Your task to perform on an android device: Open Google Image 0: 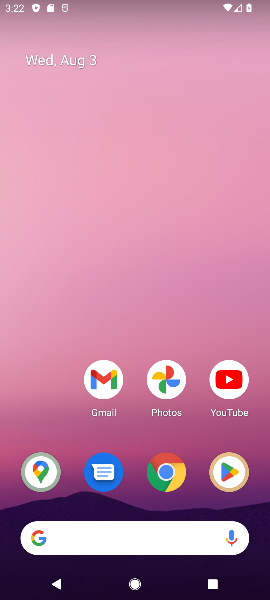
Step 0: drag from (32, 394) to (112, 46)
Your task to perform on an android device: Open Google Image 1: 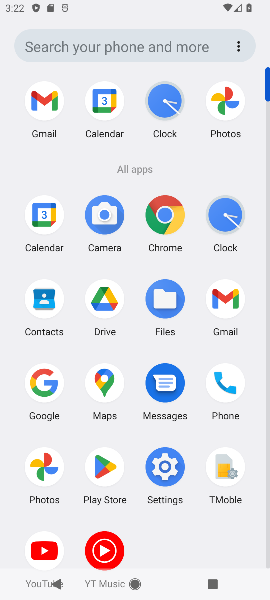
Step 1: click (60, 383)
Your task to perform on an android device: Open Google Image 2: 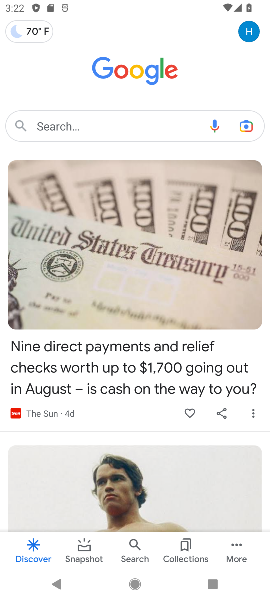
Step 2: task complete